Your task to perform on an android device: toggle improve location accuracy Image 0: 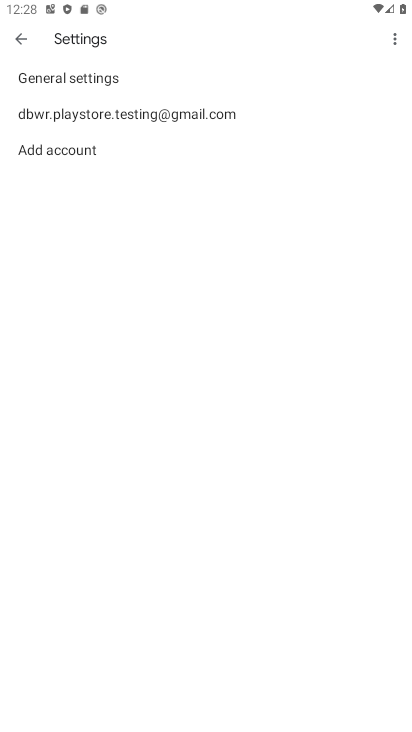
Step 0: press home button
Your task to perform on an android device: toggle improve location accuracy Image 1: 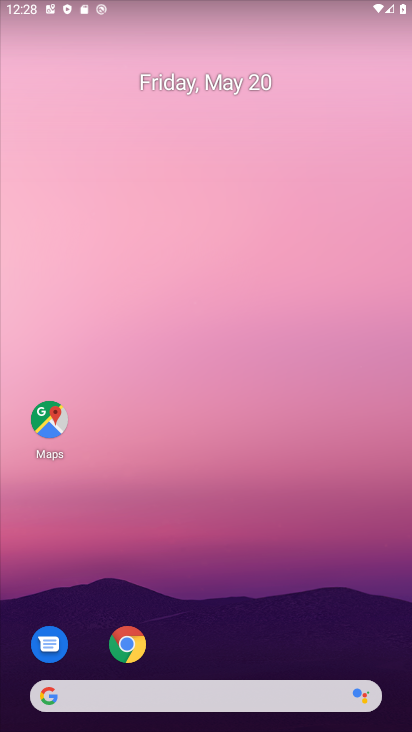
Step 1: drag from (242, 607) to (297, 10)
Your task to perform on an android device: toggle improve location accuracy Image 2: 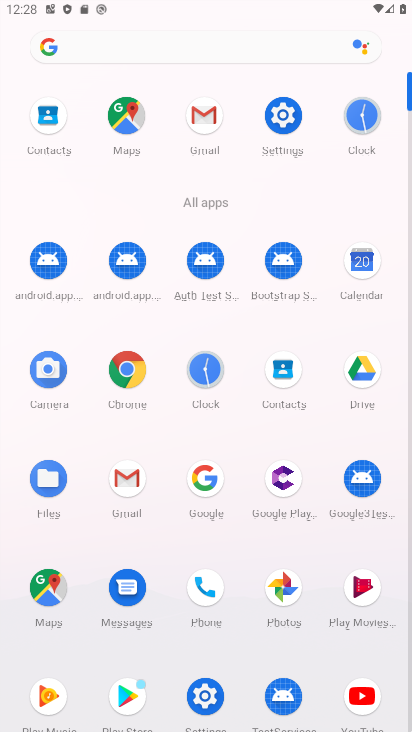
Step 2: click (290, 121)
Your task to perform on an android device: toggle improve location accuracy Image 3: 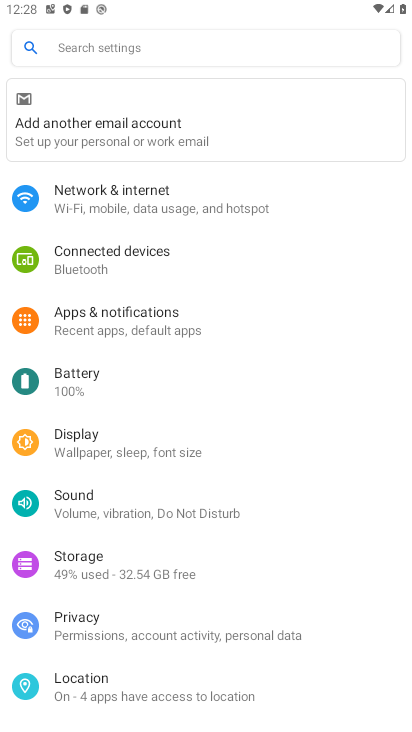
Step 3: click (88, 700)
Your task to perform on an android device: toggle improve location accuracy Image 4: 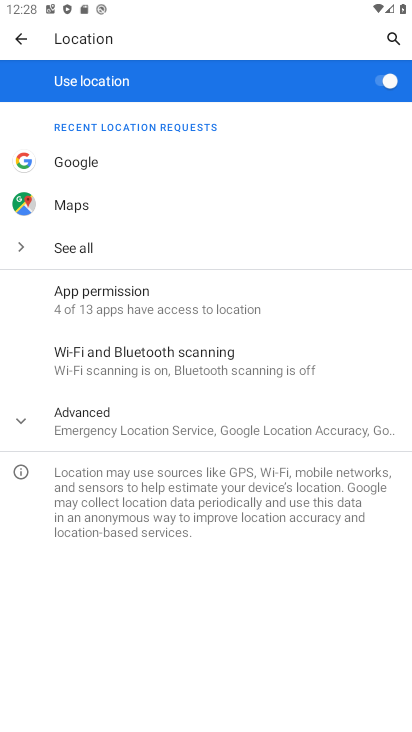
Step 4: click (20, 426)
Your task to perform on an android device: toggle improve location accuracy Image 5: 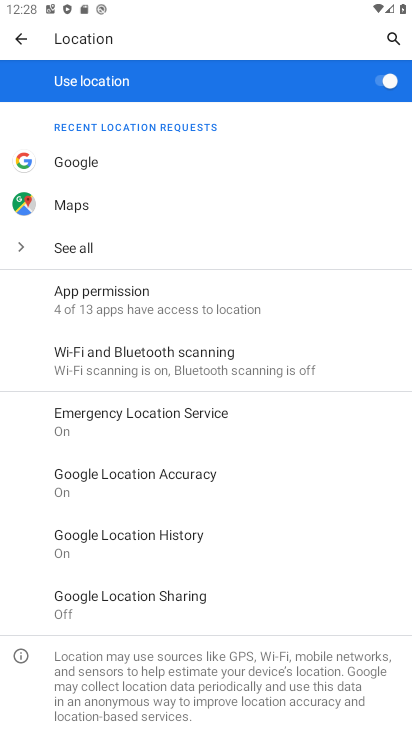
Step 5: click (92, 474)
Your task to perform on an android device: toggle improve location accuracy Image 6: 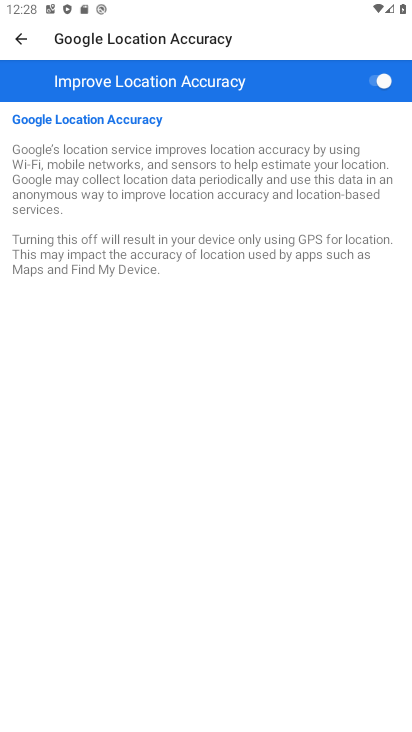
Step 6: click (380, 82)
Your task to perform on an android device: toggle improve location accuracy Image 7: 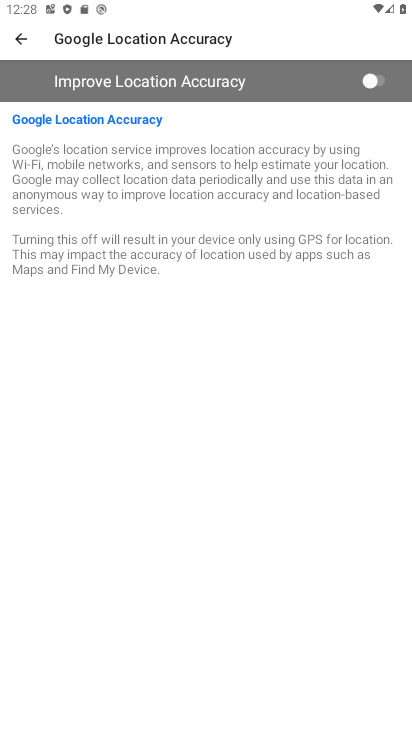
Step 7: task complete